Your task to perform on an android device: What is the news today? Image 0: 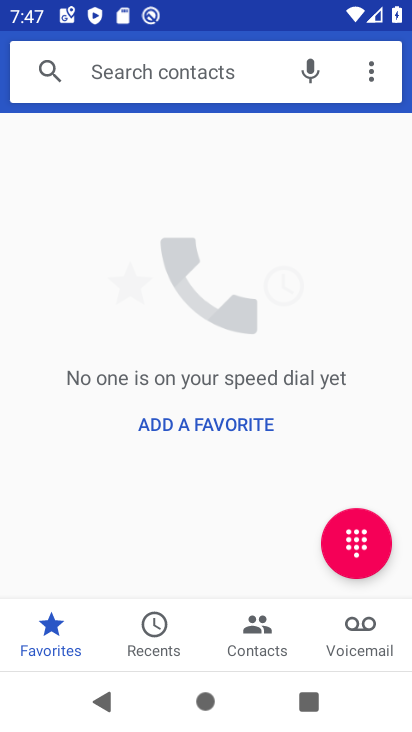
Step 0: press home button
Your task to perform on an android device: What is the news today? Image 1: 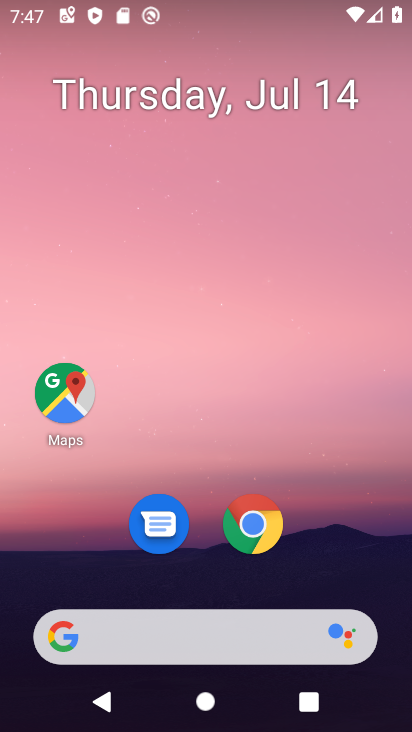
Step 1: click (223, 644)
Your task to perform on an android device: What is the news today? Image 2: 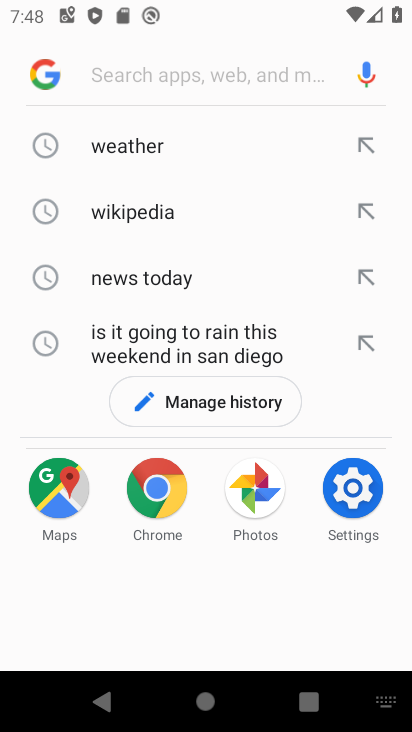
Step 2: click (120, 277)
Your task to perform on an android device: What is the news today? Image 3: 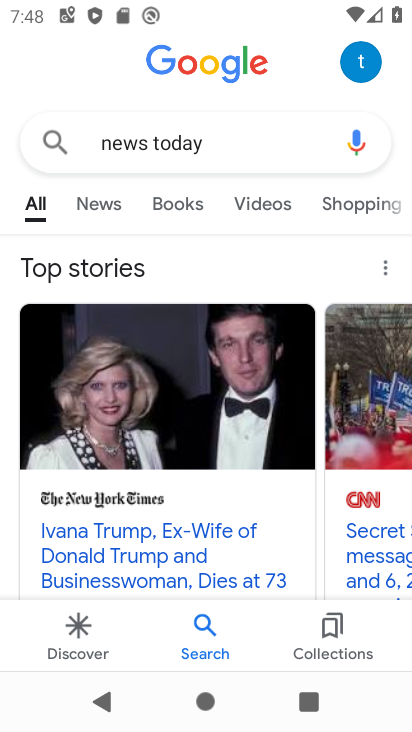
Step 3: task complete